Your task to perform on an android device: turn on javascript in the chrome app Image 0: 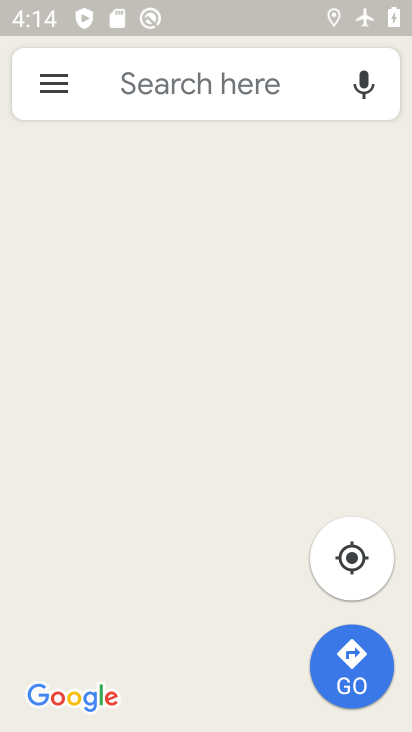
Step 0: press home button
Your task to perform on an android device: turn on javascript in the chrome app Image 1: 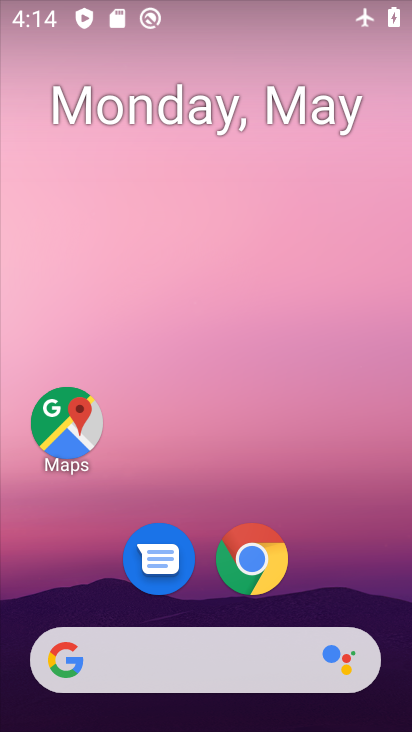
Step 1: drag from (259, 593) to (274, 126)
Your task to perform on an android device: turn on javascript in the chrome app Image 2: 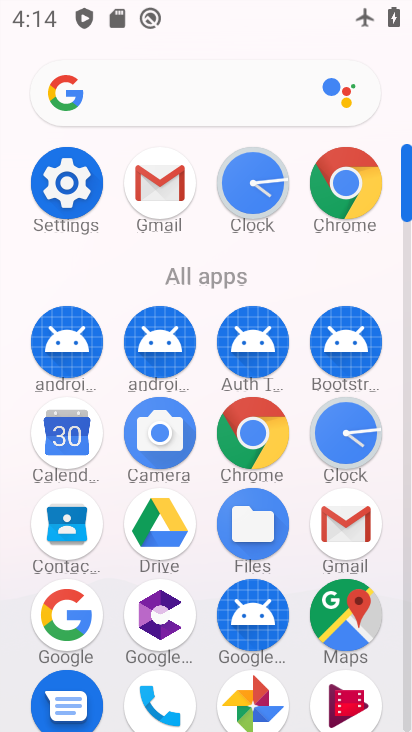
Step 2: click (276, 435)
Your task to perform on an android device: turn on javascript in the chrome app Image 3: 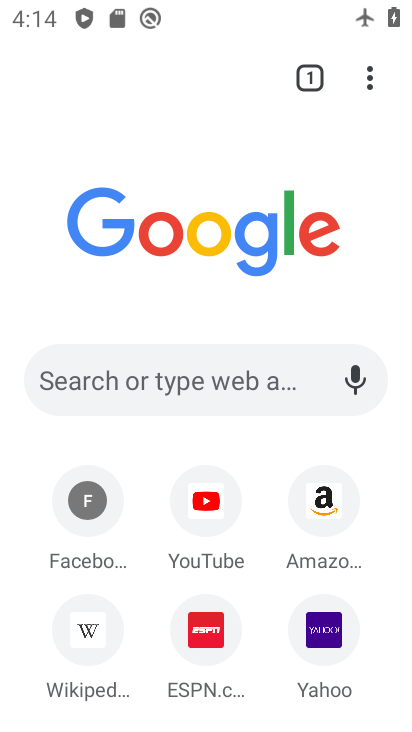
Step 3: click (370, 71)
Your task to perform on an android device: turn on javascript in the chrome app Image 4: 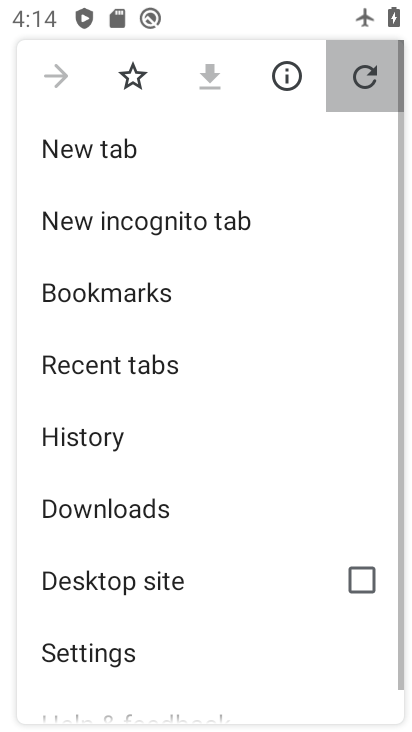
Step 4: drag from (372, 94) to (138, 647)
Your task to perform on an android device: turn on javascript in the chrome app Image 5: 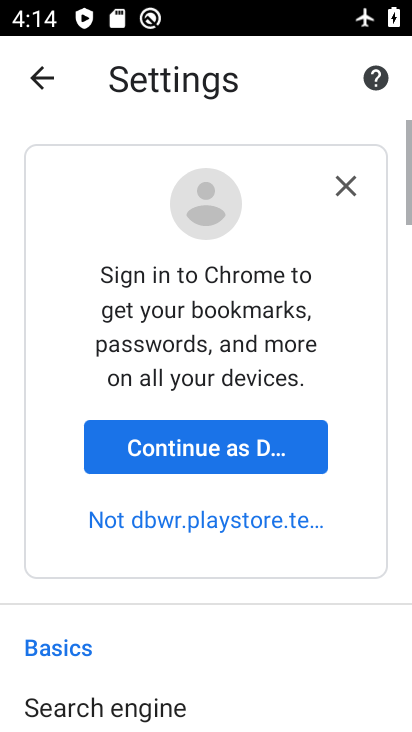
Step 5: drag from (249, 678) to (311, 151)
Your task to perform on an android device: turn on javascript in the chrome app Image 6: 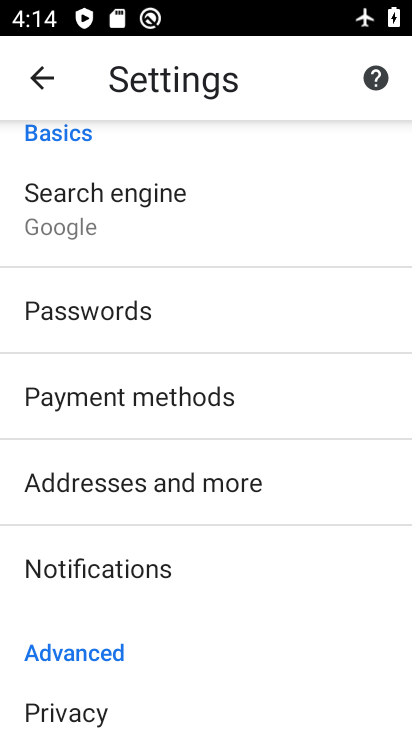
Step 6: drag from (269, 691) to (328, 256)
Your task to perform on an android device: turn on javascript in the chrome app Image 7: 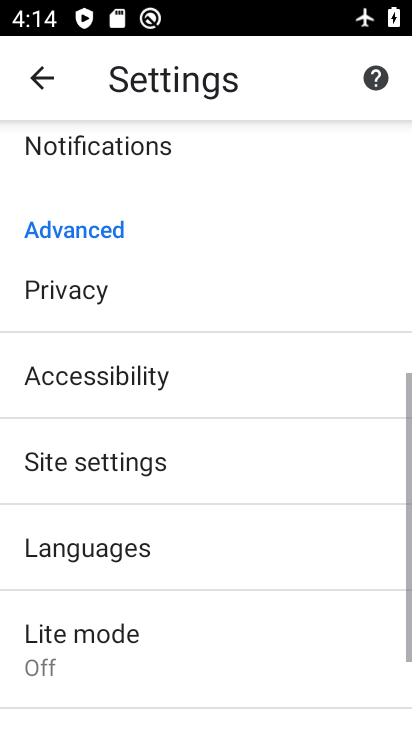
Step 7: click (188, 465)
Your task to perform on an android device: turn on javascript in the chrome app Image 8: 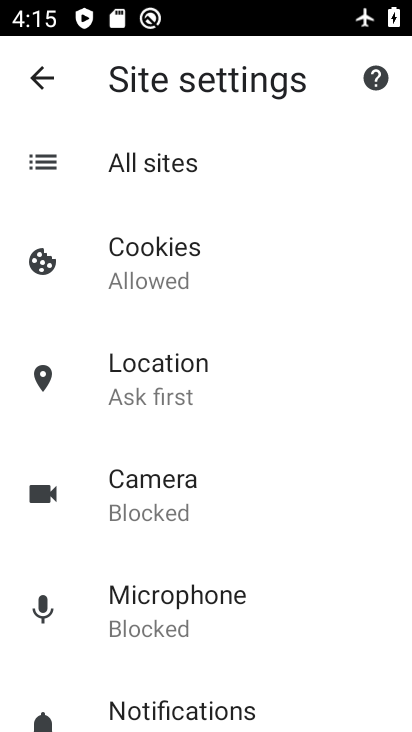
Step 8: drag from (209, 460) to (245, 277)
Your task to perform on an android device: turn on javascript in the chrome app Image 9: 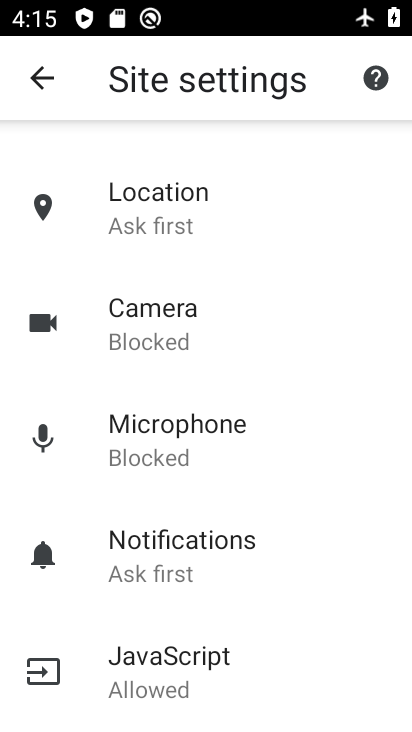
Step 9: click (205, 659)
Your task to perform on an android device: turn on javascript in the chrome app Image 10: 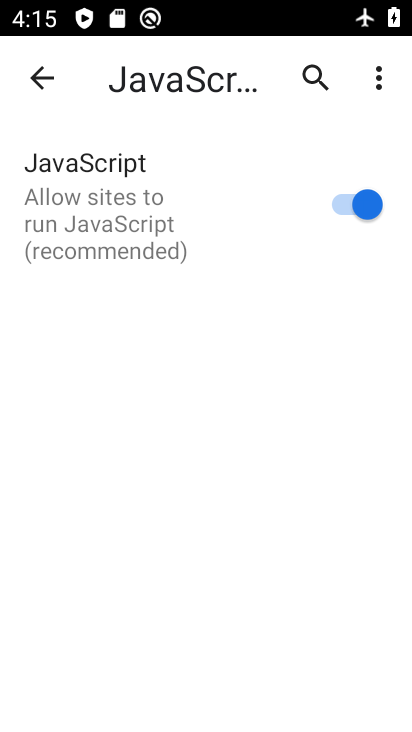
Step 10: task complete